Your task to perform on an android device: toggle improve location accuracy Image 0: 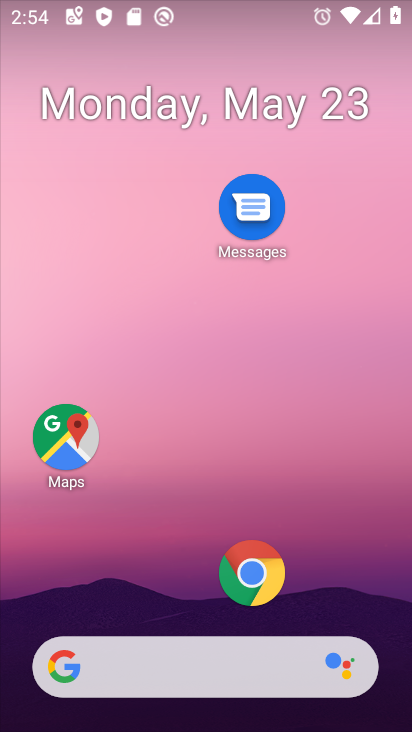
Step 0: drag from (339, 637) to (309, 38)
Your task to perform on an android device: toggle improve location accuracy Image 1: 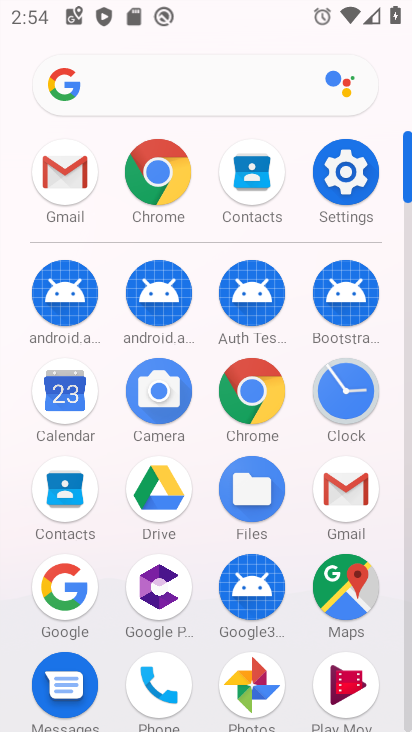
Step 1: click (349, 175)
Your task to perform on an android device: toggle improve location accuracy Image 2: 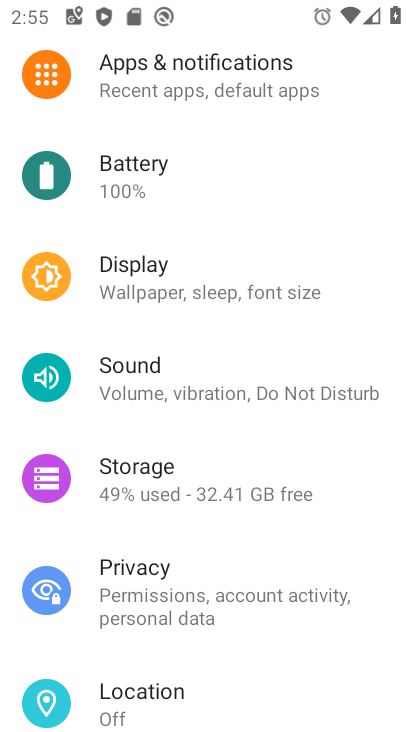
Step 2: drag from (234, 640) to (278, 231)
Your task to perform on an android device: toggle improve location accuracy Image 3: 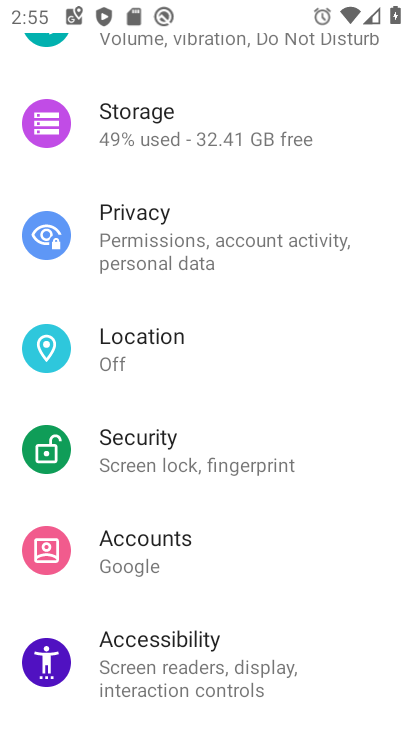
Step 3: click (203, 354)
Your task to perform on an android device: toggle improve location accuracy Image 4: 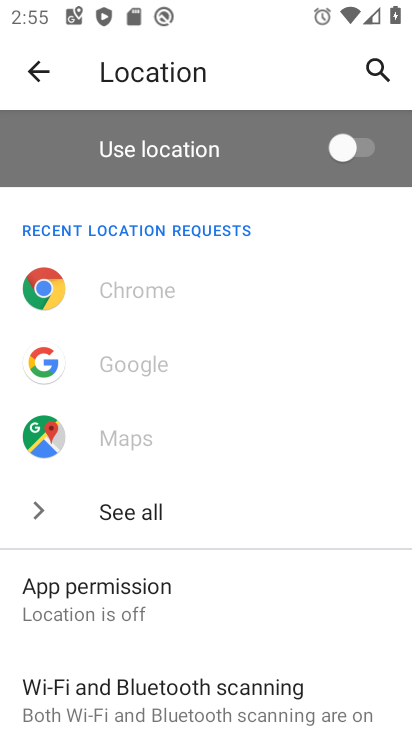
Step 4: drag from (200, 715) to (216, 204)
Your task to perform on an android device: toggle improve location accuracy Image 5: 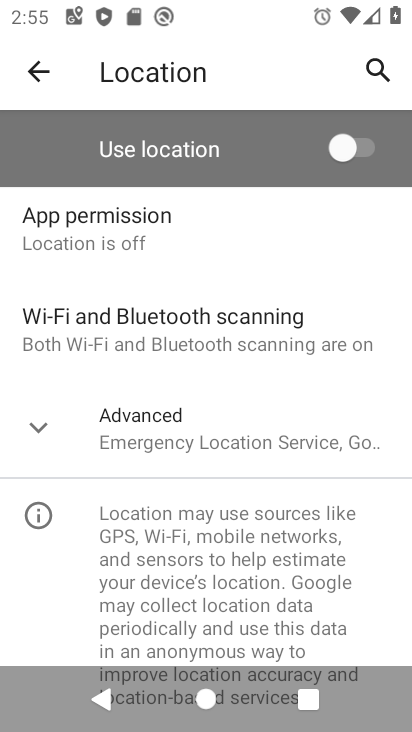
Step 5: click (239, 435)
Your task to perform on an android device: toggle improve location accuracy Image 6: 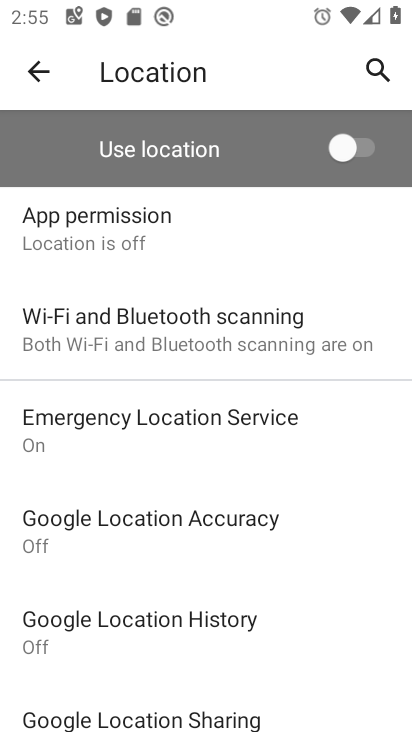
Step 6: click (231, 513)
Your task to perform on an android device: toggle improve location accuracy Image 7: 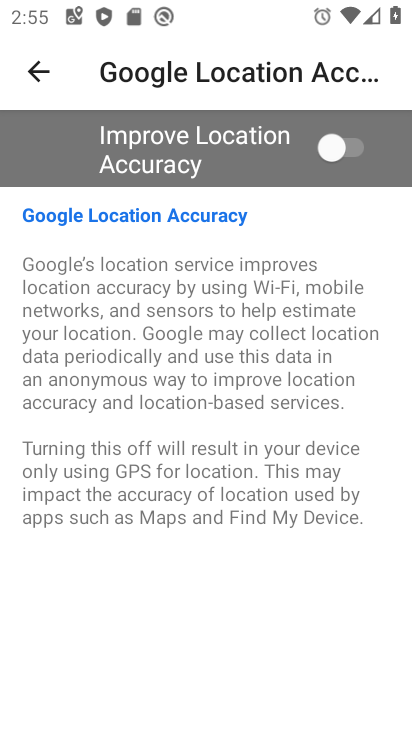
Step 7: click (353, 157)
Your task to perform on an android device: toggle improve location accuracy Image 8: 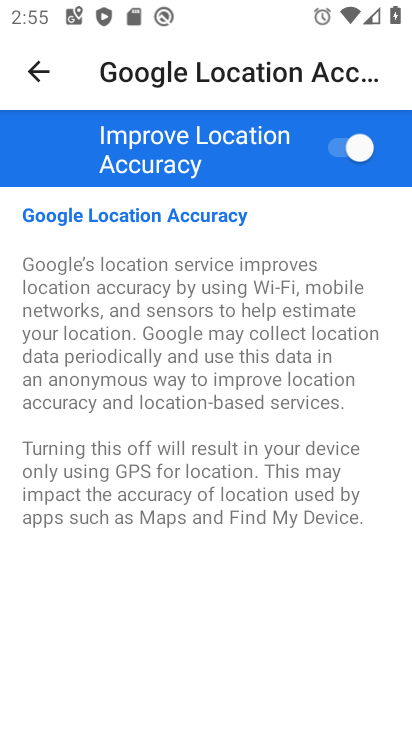
Step 8: task complete